Your task to perform on an android device: set the stopwatch Image 0: 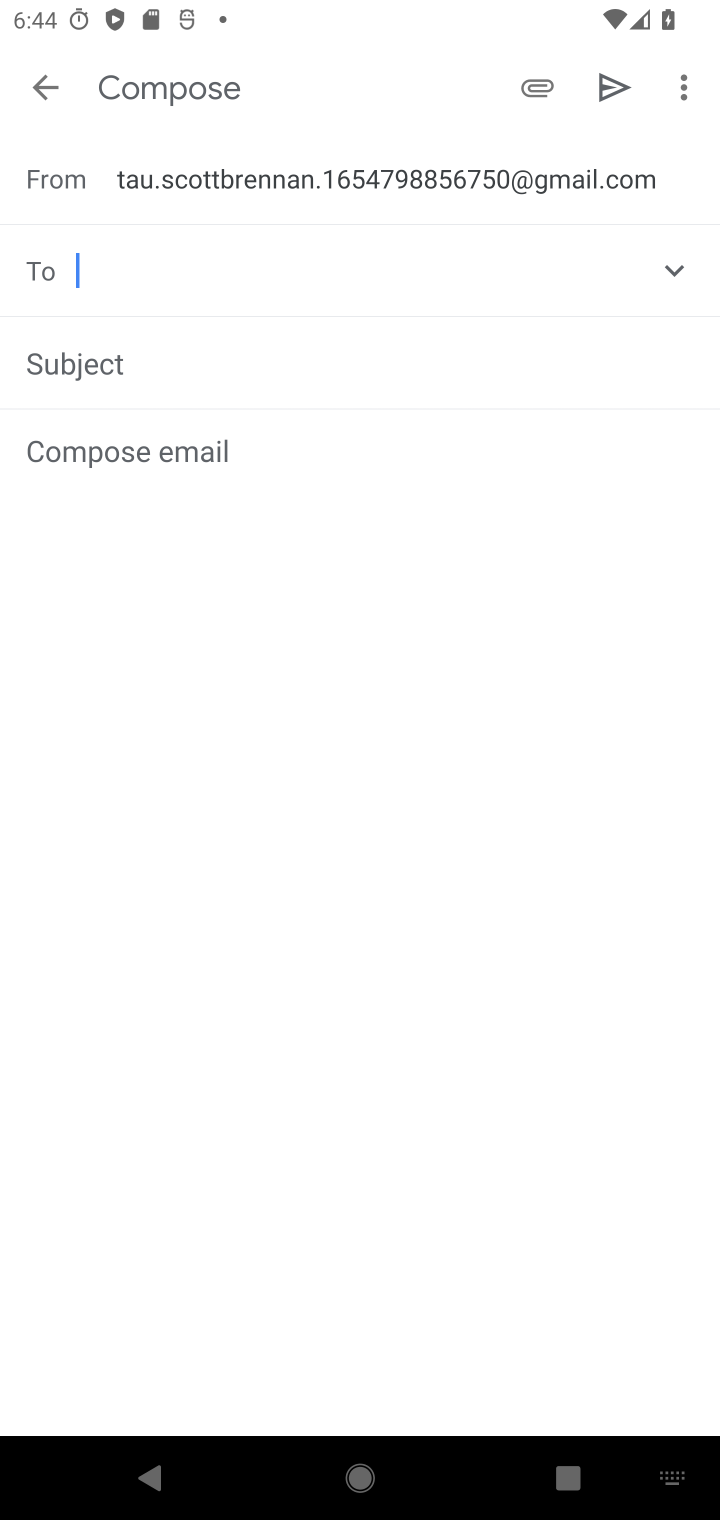
Step 0: press home button
Your task to perform on an android device: set the stopwatch Image 1: 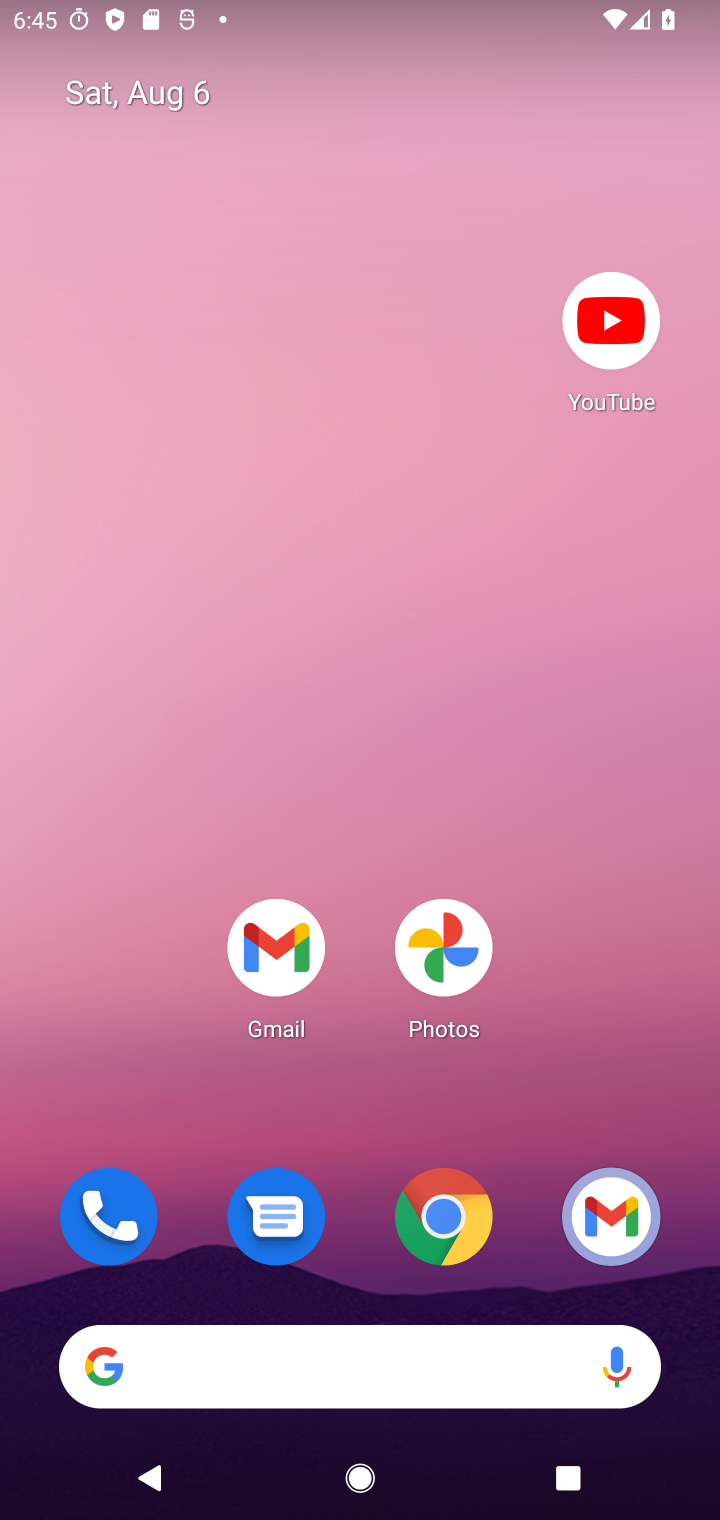
Step 1: drag from (559, 1035) to (324, 69)
Your task to perform on an android device: set the stopwatch Image 2: 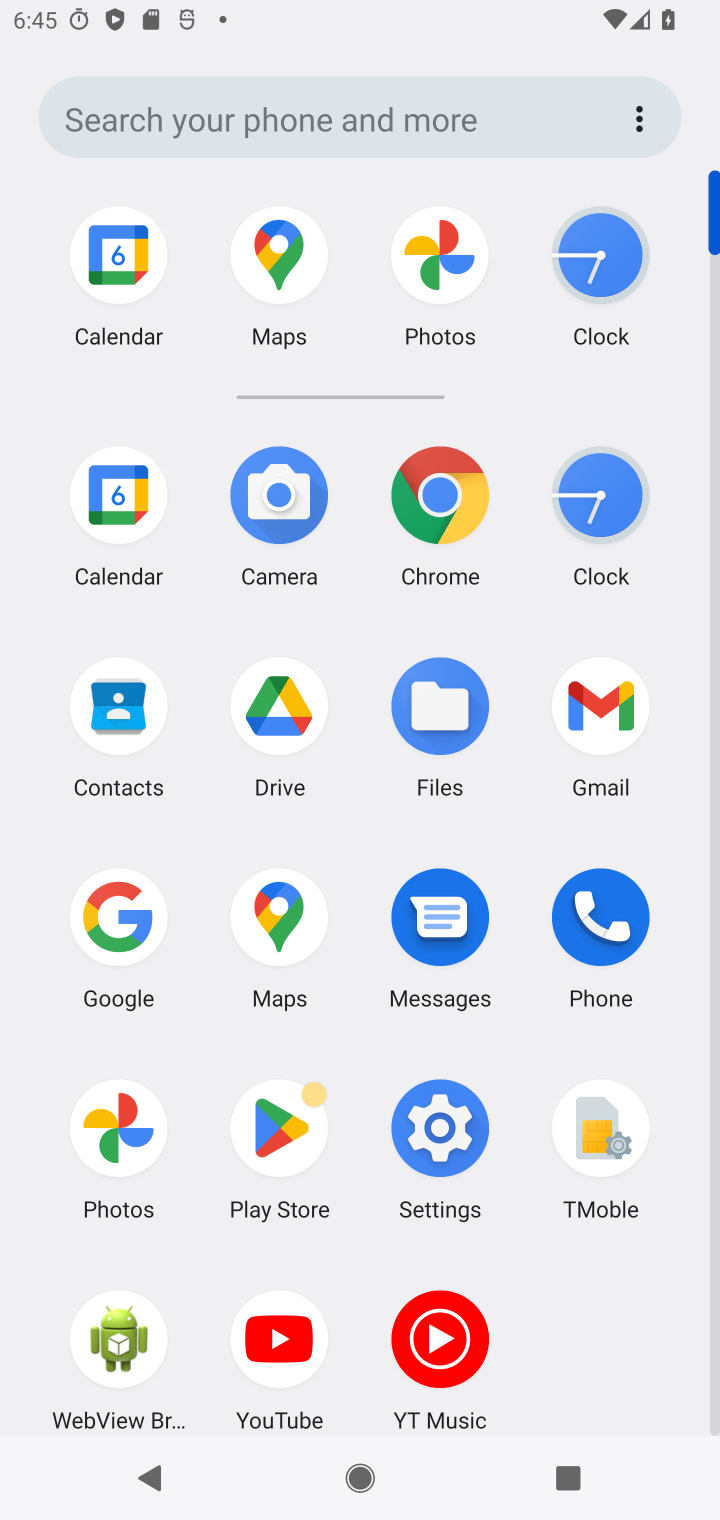
Step 2: click (603, 517)
Your task to perform on an android device: set the stopwatch Image 3: 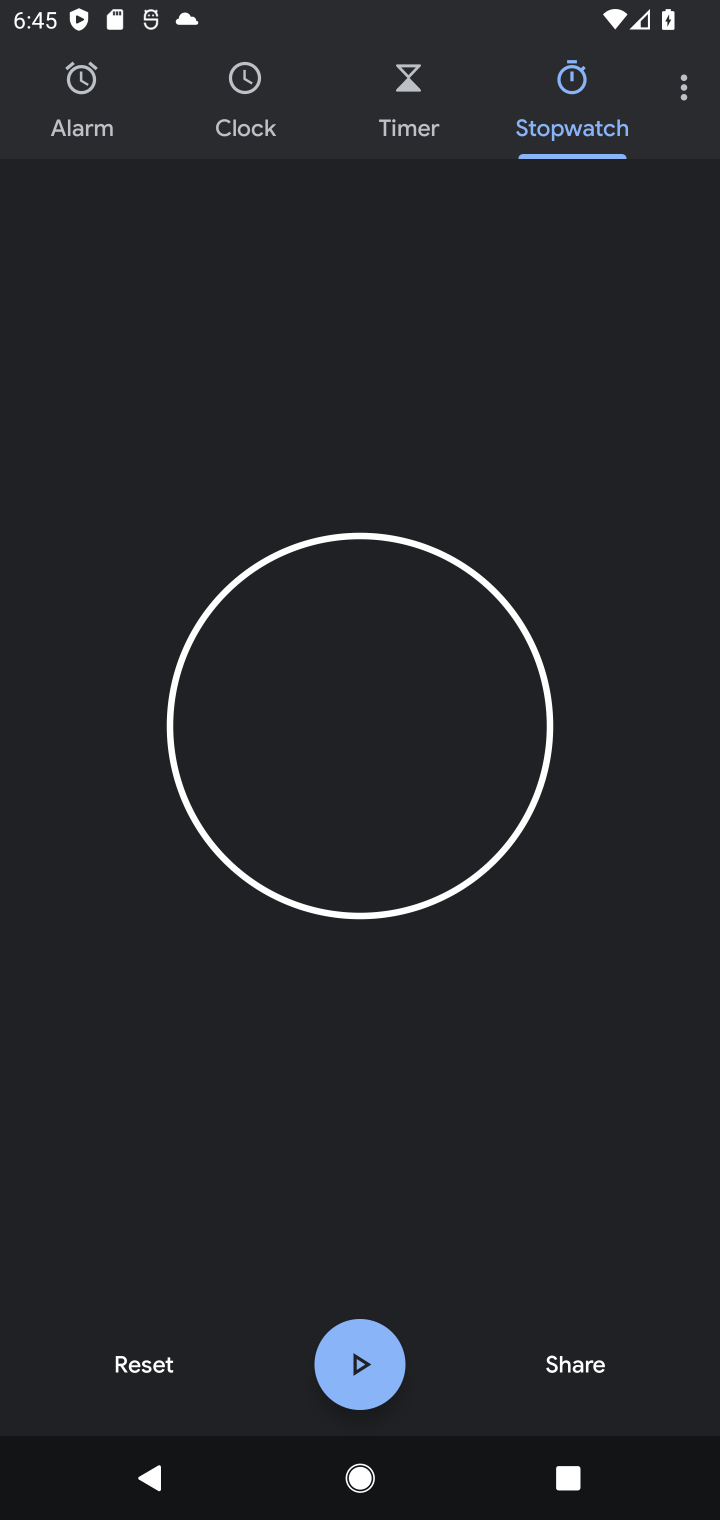
Step 3: task complete